Your task to perform on an android device: change the clock display to show seconds Image 0: 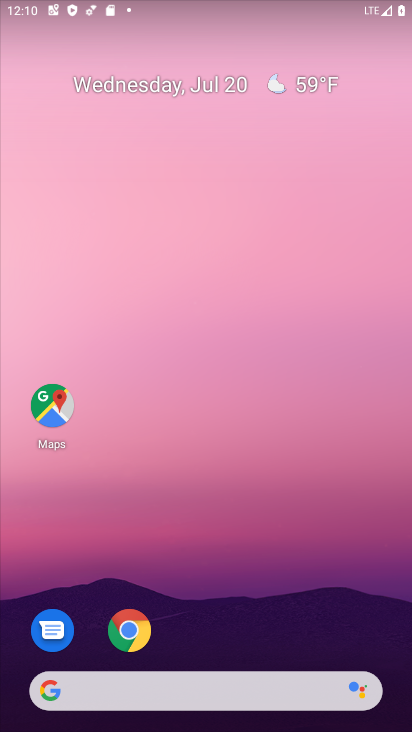
Step 0: drag from (274, 661) to (317, 197)
Your task to perform on an android device: change the clock display to show seconds Image 1: 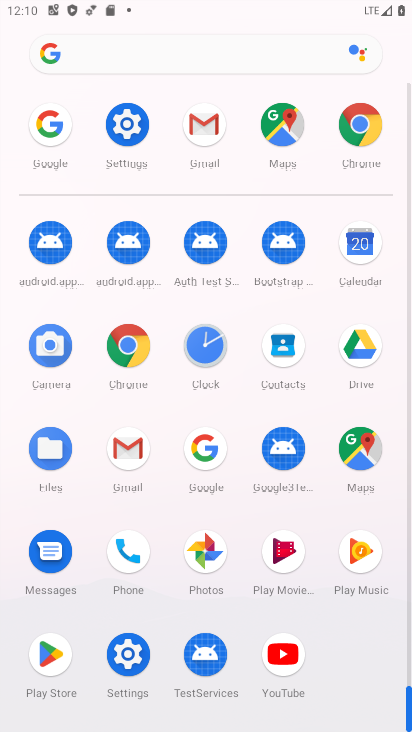
Step 1: click (202, 358)
Your task to perform on an android device: change the clock display to show seconds Image 2: 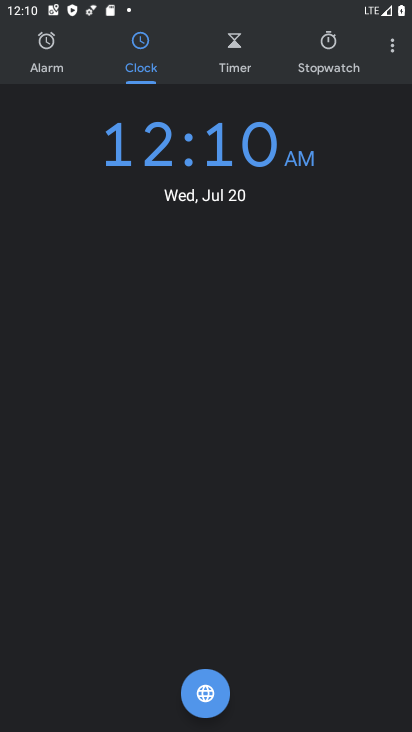
Step 2: click (393, 52)
Your task to perform on an android device: change the clock display to show seconds Image 3: 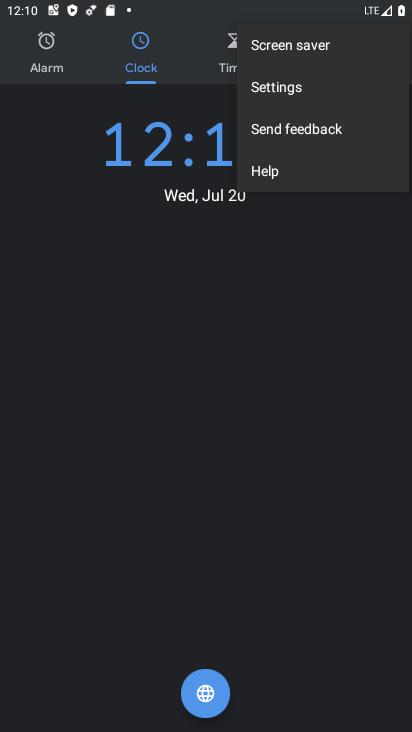
Step 3: click (290, 93)
Your task to perform on an android device: change the clock display to show seconds Image 4: 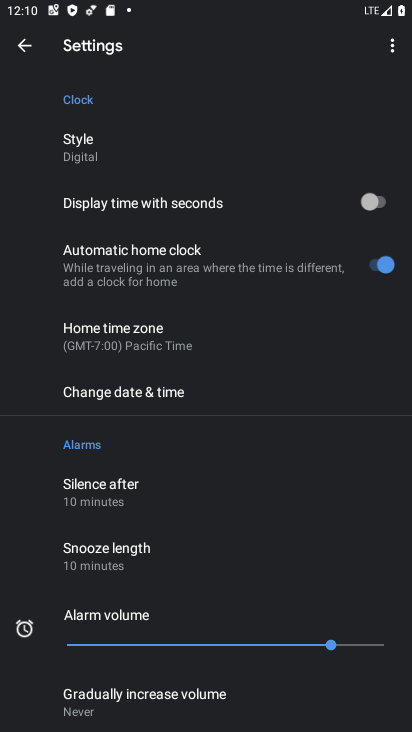
Step 4: click (388, 208)
Your task to perform on an android device: change the clock display to show seconds Image 5: 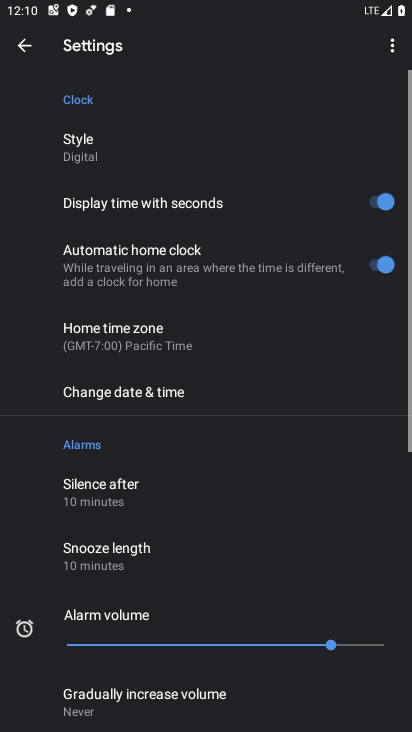
Step 5: task complete